Your task to perform on an android device: Open battery settings Image 0: 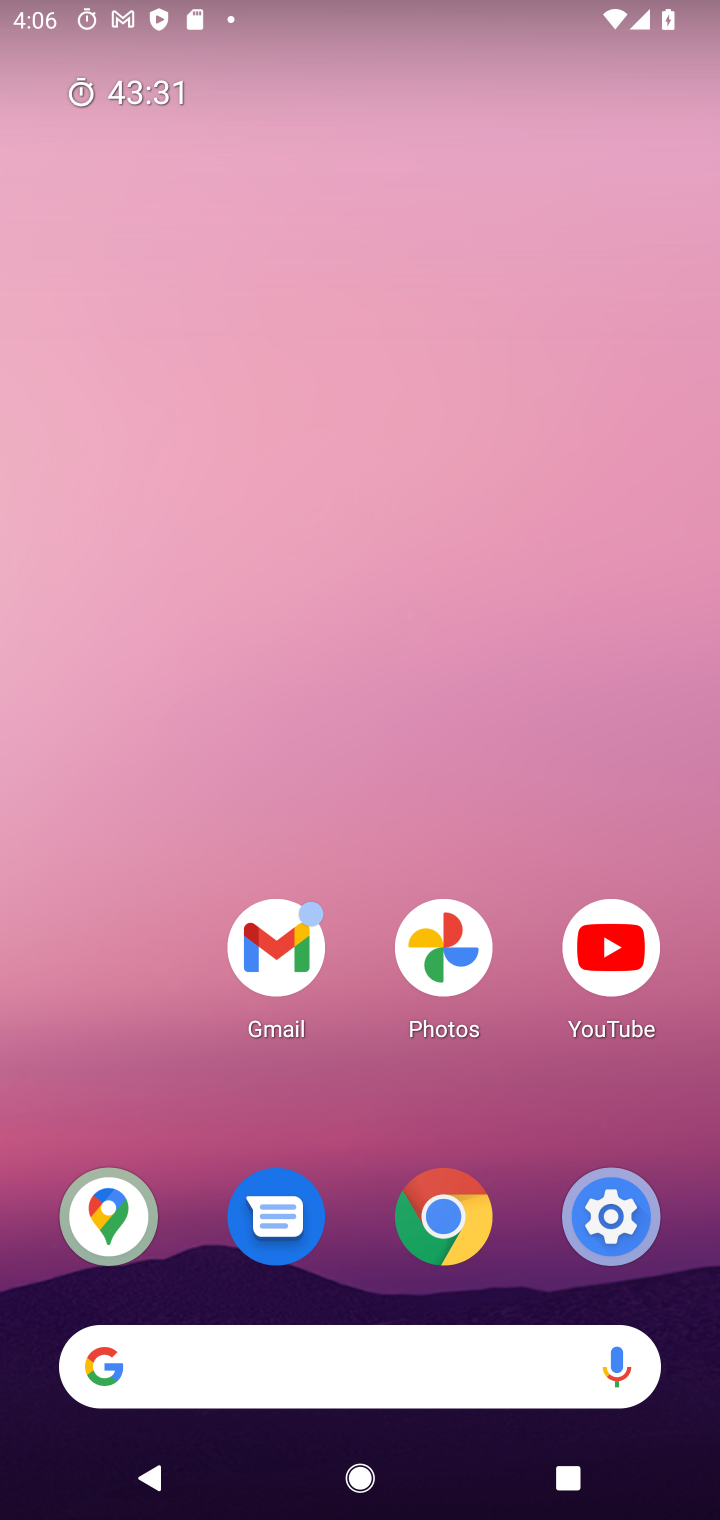
Step 0: click (604, 1197)
Your task to perform on an android device: Open battery settings Image 1: 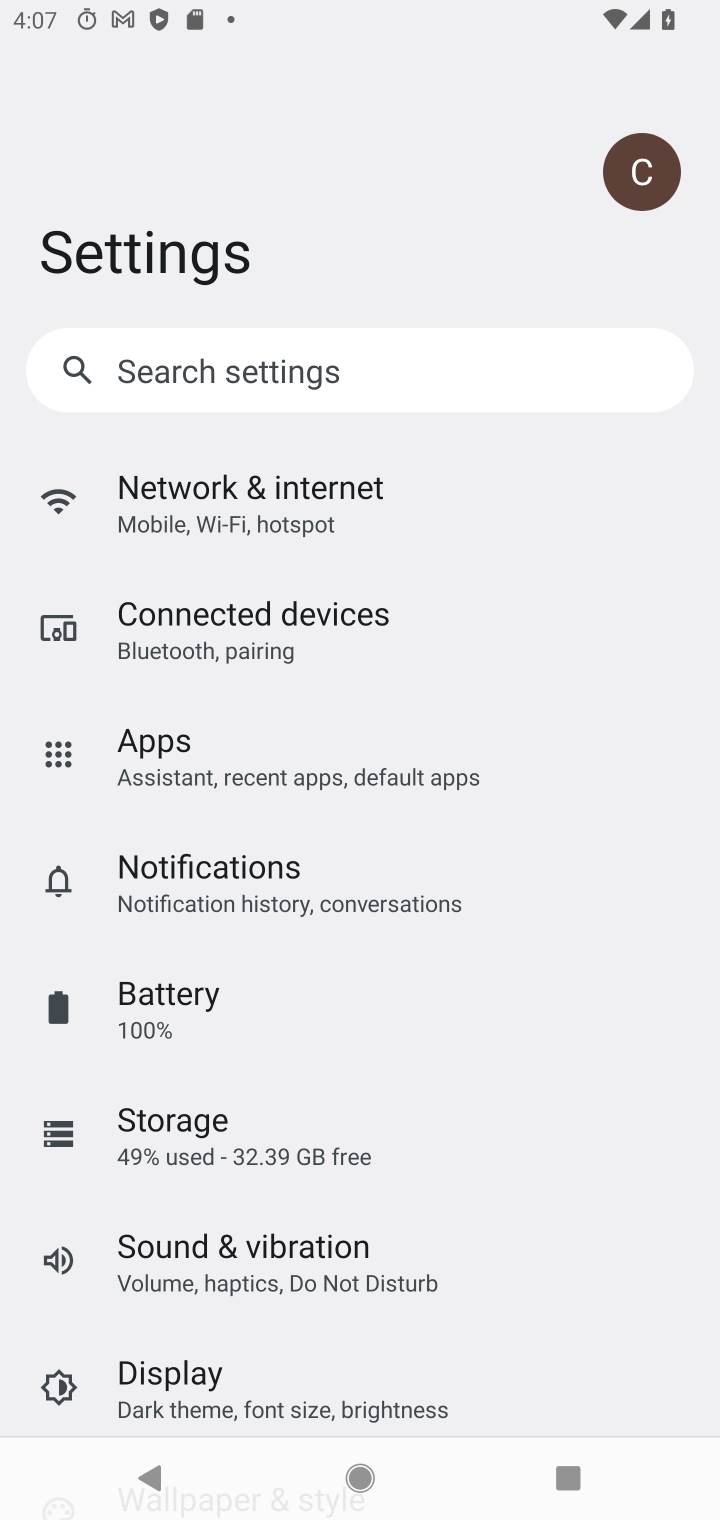
Step 1: click (119, 991)
Your task to perform on an android device: Open battery settings Image 2: 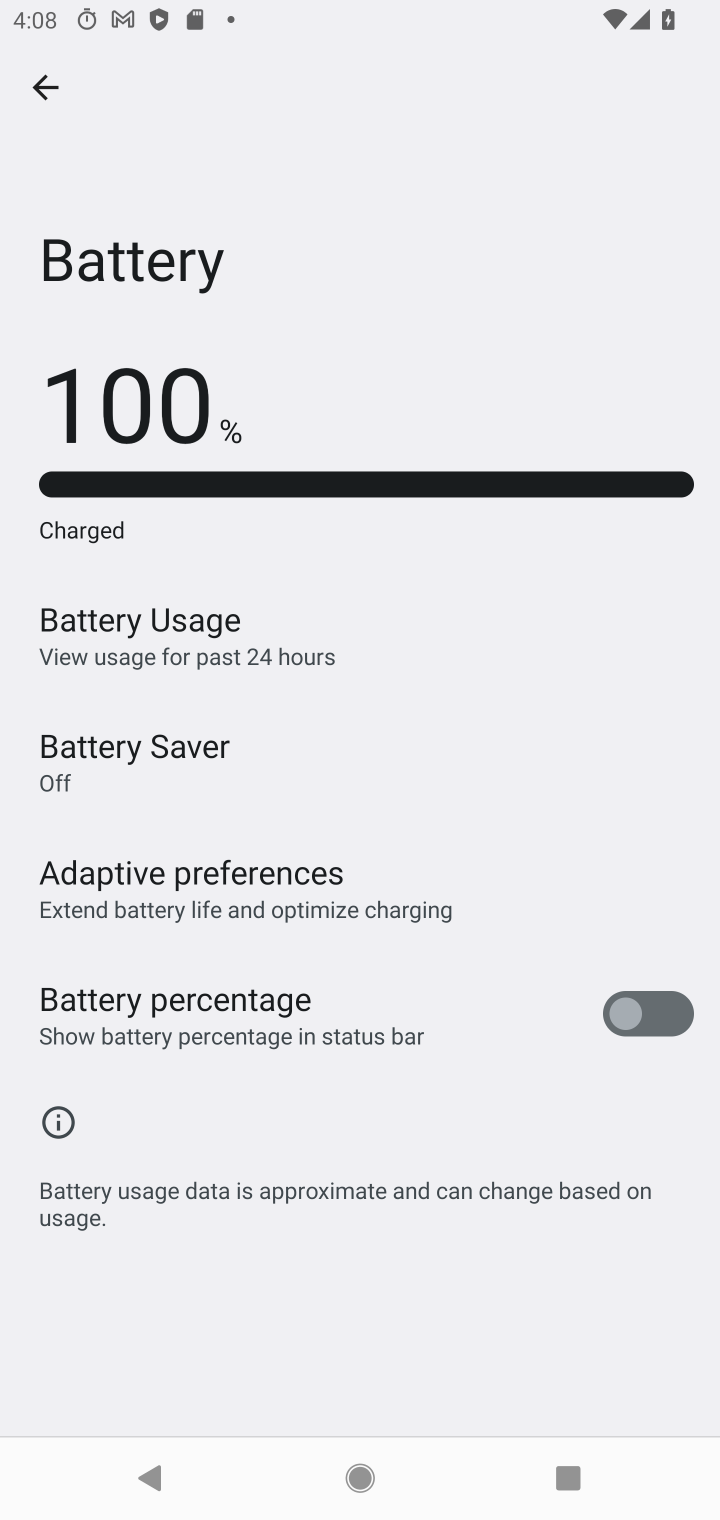
Step 2: task complete